Your task to perform on an android device: Go to notification settings Image 0: 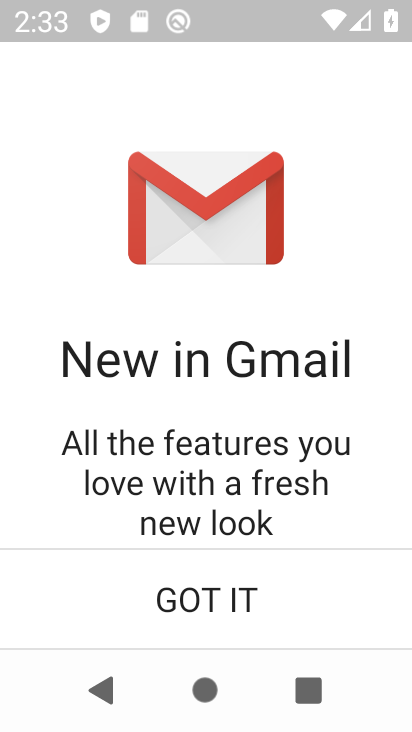
Step 0: click (191, 602)
Your task to perform on an android device: Go to notification settings Image 1: 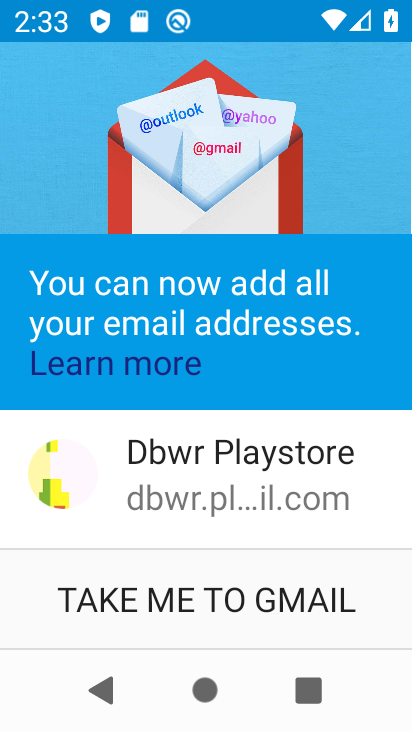
Step 1: click (191, 602)
Your task to perform on an android device: Go to notification settings Image 2: 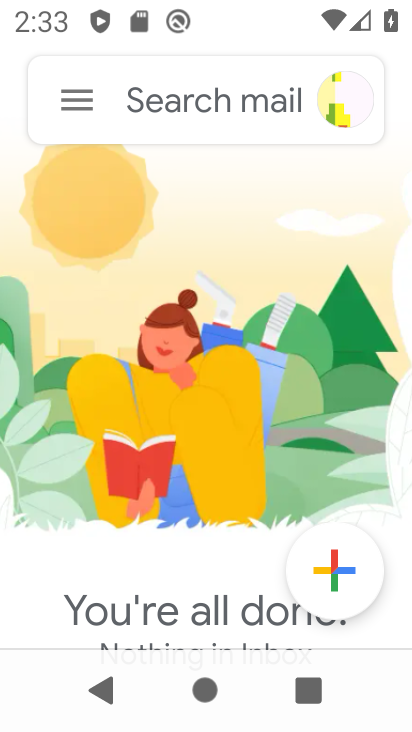
Step 2: press home button
Your task to perform on an android device: Go to notification settings Image 3: 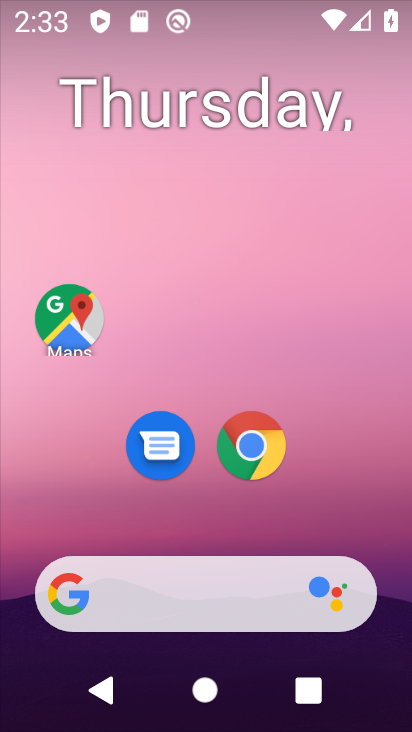
Step 3: drag from (197, 482) to (279, 2)
Your task to perform on an android device: Go to notification settings Image 4: 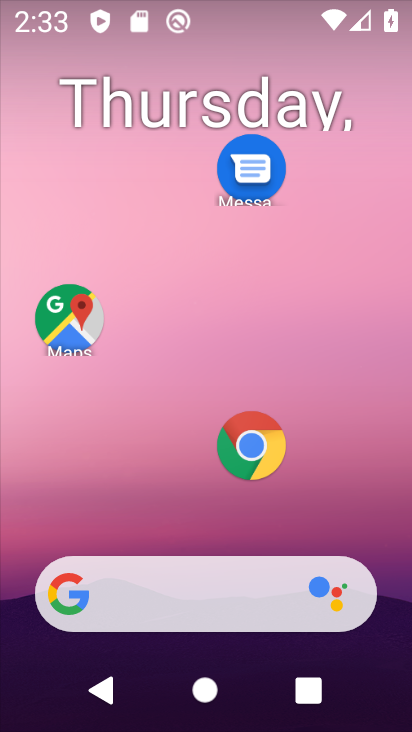
Step 4: drag from (165, 496) to (231, 19)
Your task to perform on an android device: Go to notification settings Image 5: 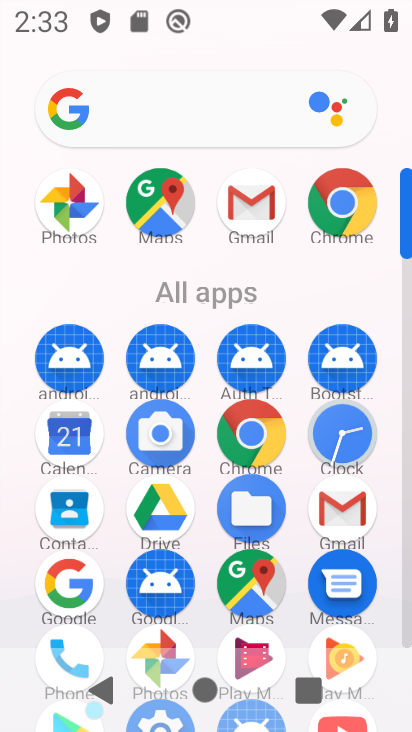
Step 5: drag from (207, 491) to (201, 180)
Your task to perform on an android device: Go to notification settings Image 6: 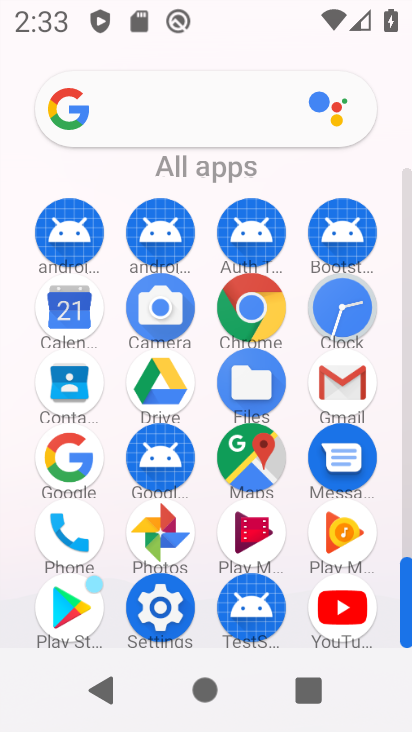
Step 6: click (162, 606)
Your task to perform on an android device: Go to notification settings Image 7: 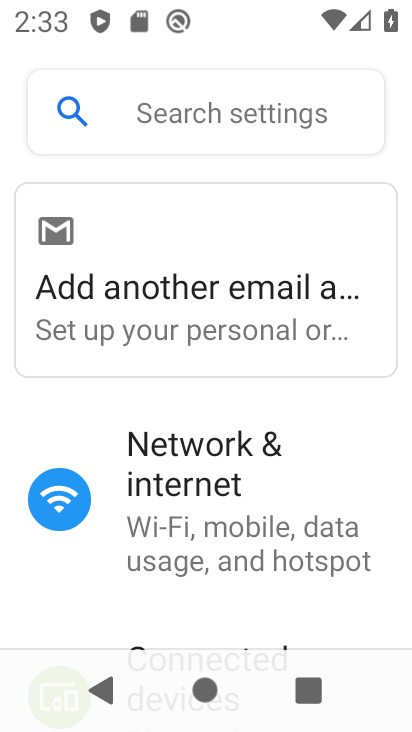
Step 7: drag from (175, 610) to (285, 401)
Your task to perform on an android device: Go to notification settings Image 8: 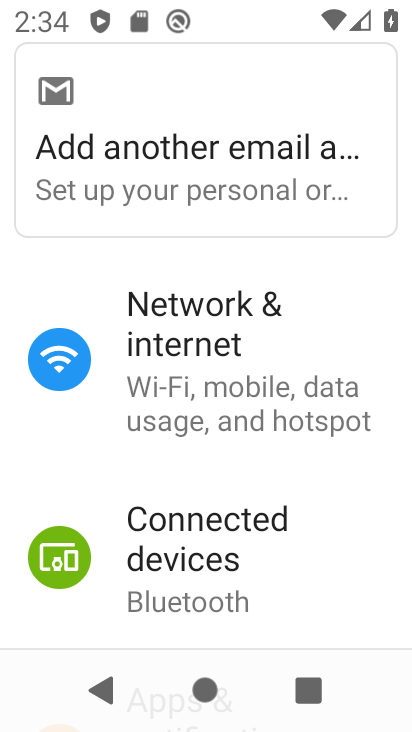
Step 8: drag from (278, 586) to (324, 371)
Your task to perform on an android device: Go to notification settings Image 9: 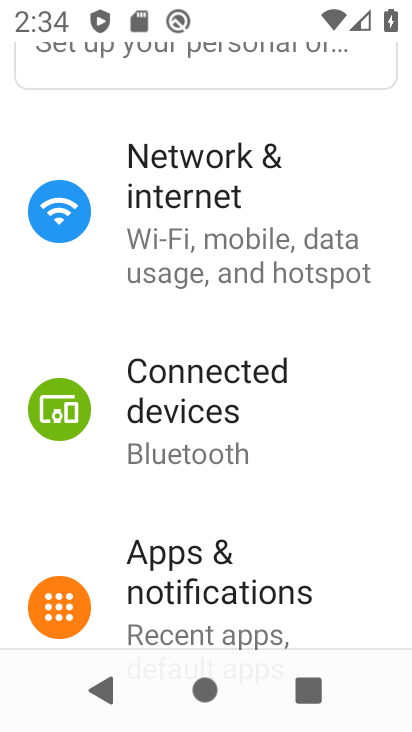
Step 9: click (237, 604)
Your task to perform on an android device: Go to notification settings Image 10: 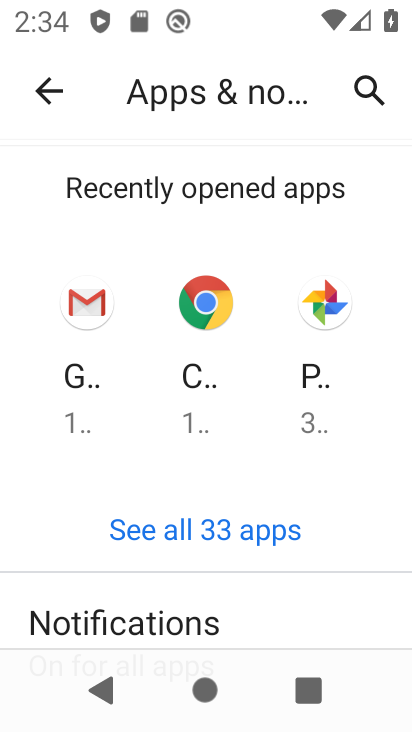
Step 10: task complete